Your task to perform on an android device: turn off translation in the chrome app Image 0: 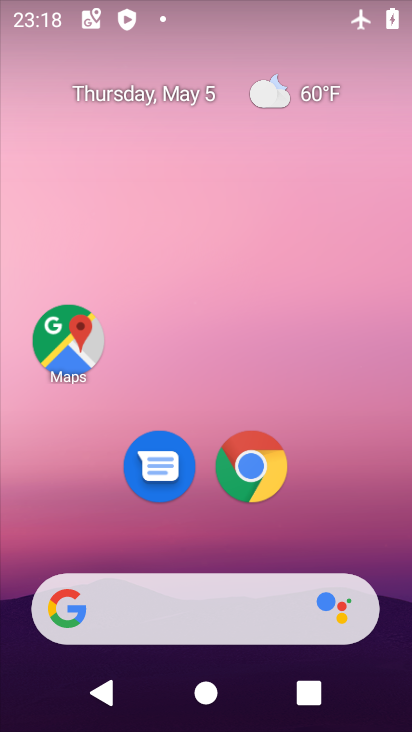
Step 0: click (250, 460)
Your task to perform on an android device: turn off translation in the chrome app Image 1: 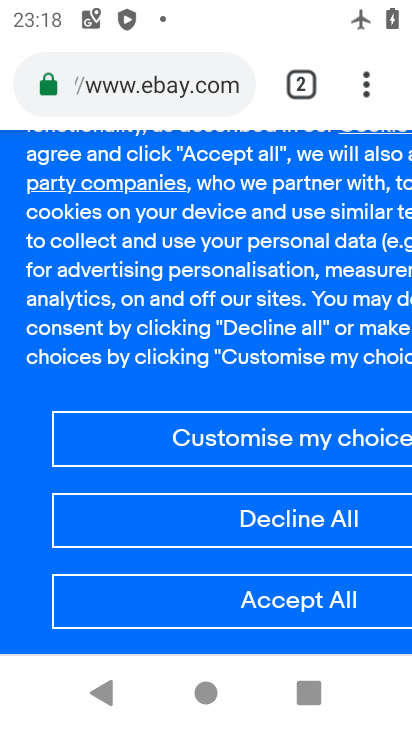
Step 1: click (364, 92)
Your task to perform on an android device: turn off translation in the chrome app Image 2: 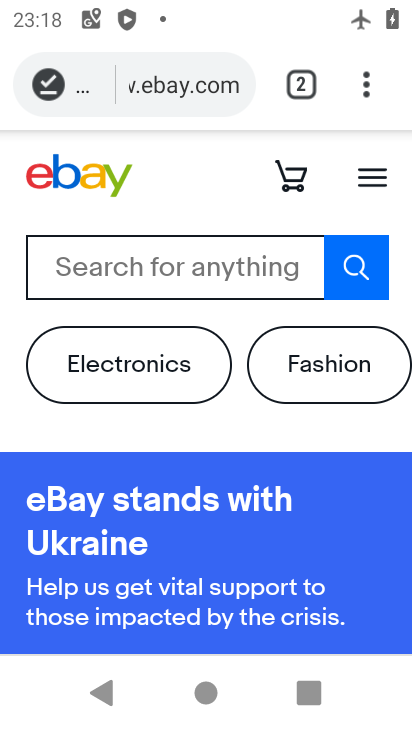
Step 2: click (368, 89)
Your task to perform on an android device: turn off translation in the chrome app Image 3: 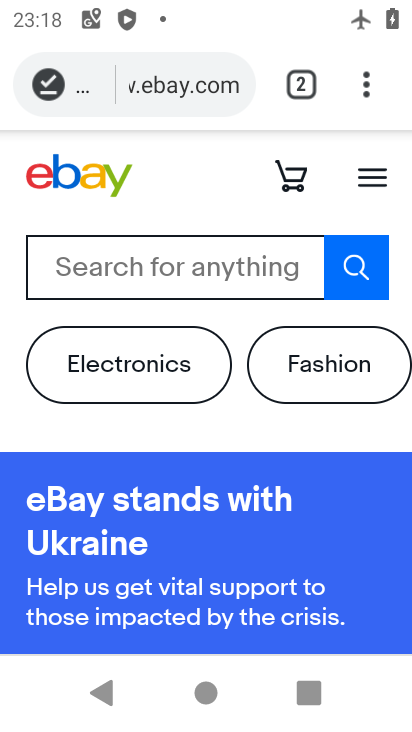
Step 3: click (368, 89)
Your task to perform on an android device: turn off translation in the chrome app Image 4: 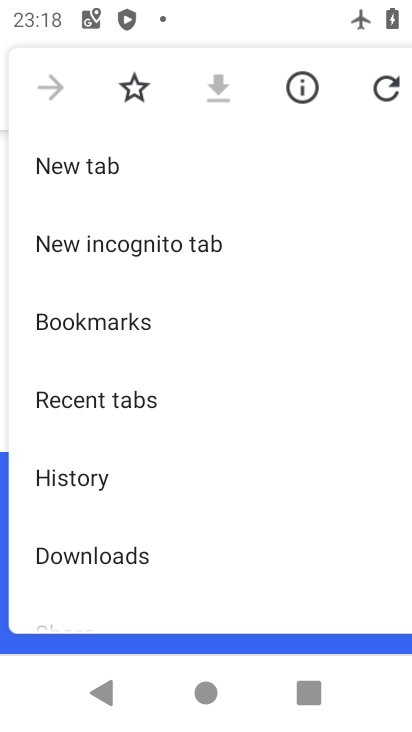
Step 4: drag from (115, 597) to (192, 243)
Your task to perform on an android device: turn off translation in the chrome app Image 5: 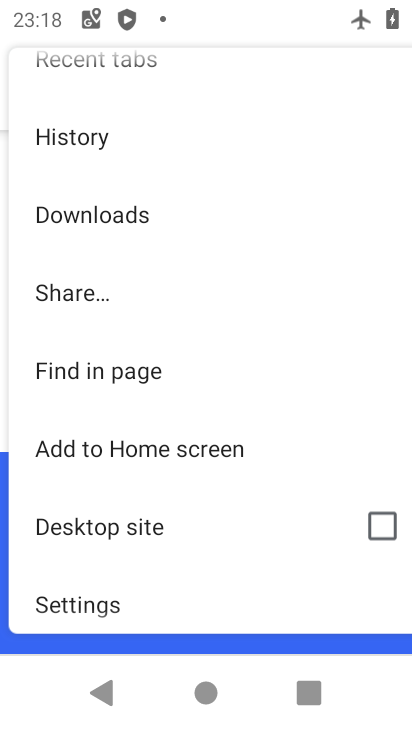
Step 5: click (98, 611)
Your task to perform on an android device: turn off translation in the chrome app Image 6: 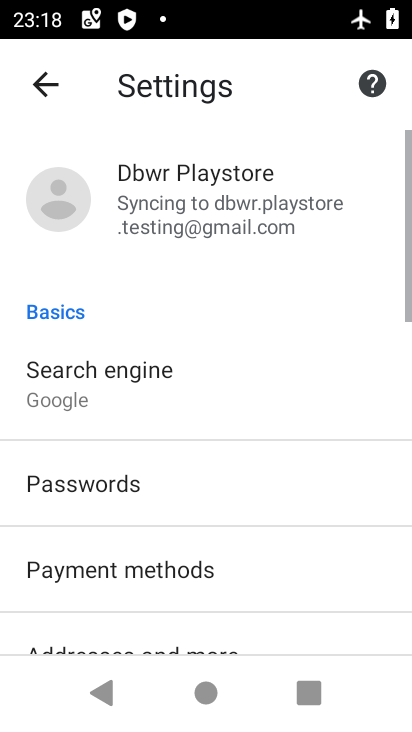
Step 6: drag from (75, 616) to (135, 346)
Your task to perform on an android device: turn off translation in the chrome app Image 7: 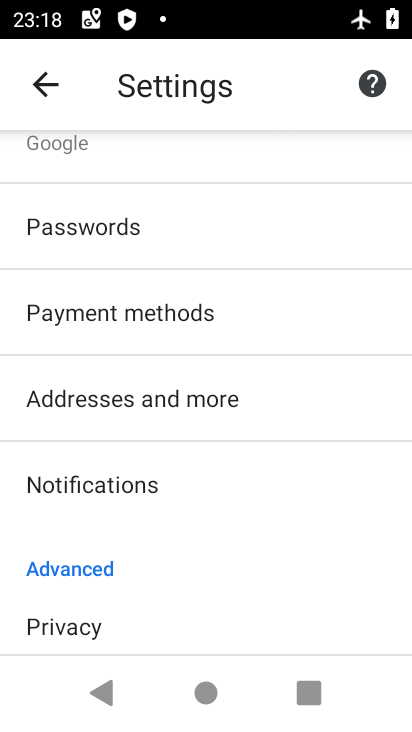
Step 7: drag from (133, 651) to (211, 394)
Your task to perform on an android device: turn off translation in the chrome app Image 8: 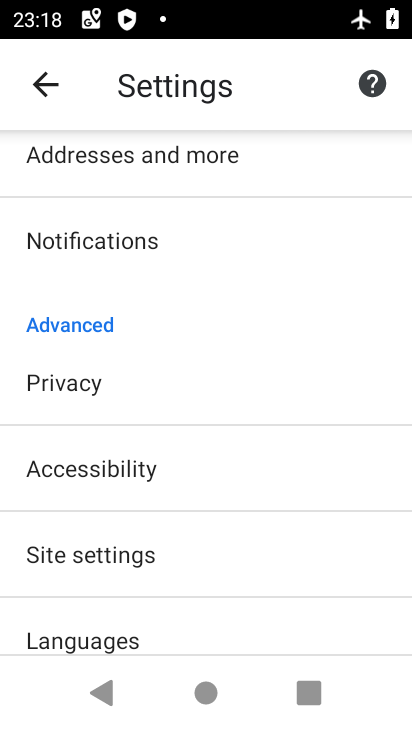
Step 8: click (127, 648)
Your task to perform on an android device: turn off translation in the chrome app Image 9: 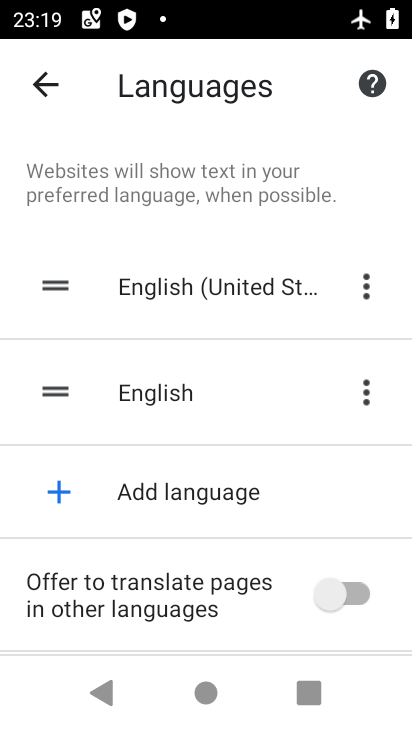
Step 9: task complete